Your task to perform on an android device: Search for Mexican restaurants on Maps Image 0: 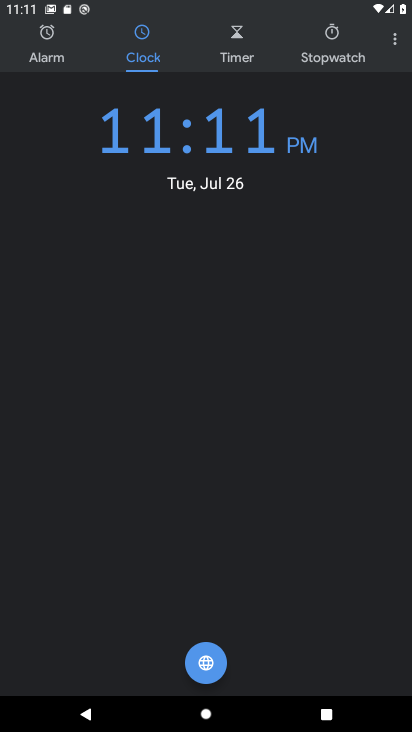
Step 0: press home button
Your task to perform on an android device: Search for Mexican restaurants on Maps Image 1: 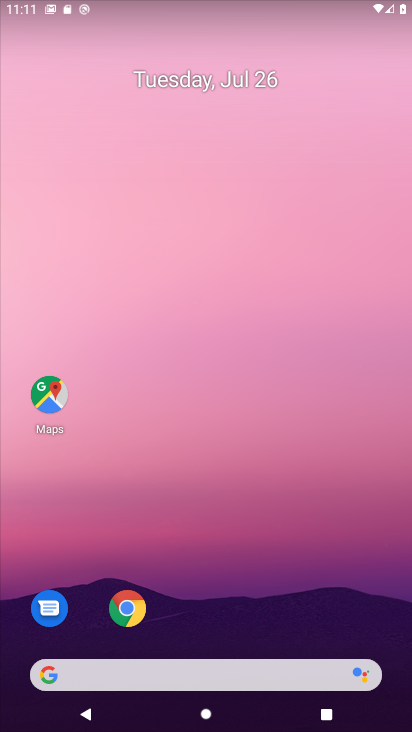
Step 1: click (55, 379)
Your task to perform on an android device: Search for Mexican restaurants on Maps Image 2: 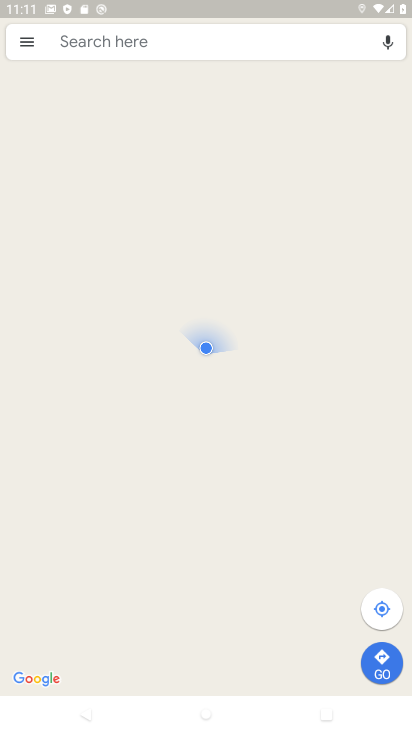
Step 2: click (92, 50)
Your task to perform on an android device: Search for Mexican restaurants on Maps Image 3: 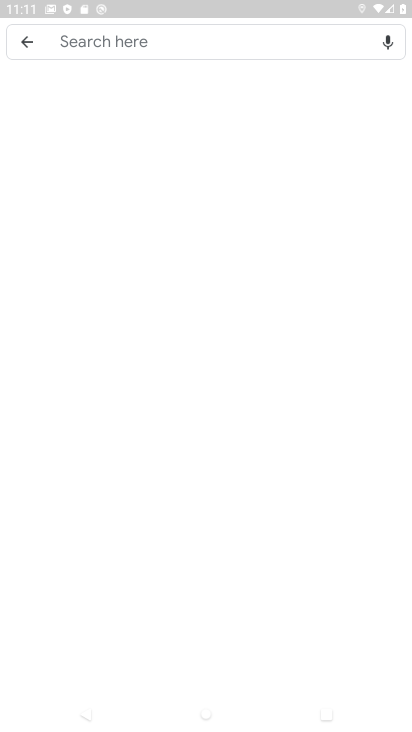
Step 3: click (179, 44)
Your task to perform on an android device: Search for Mexican restaurants on Maps Image 4: 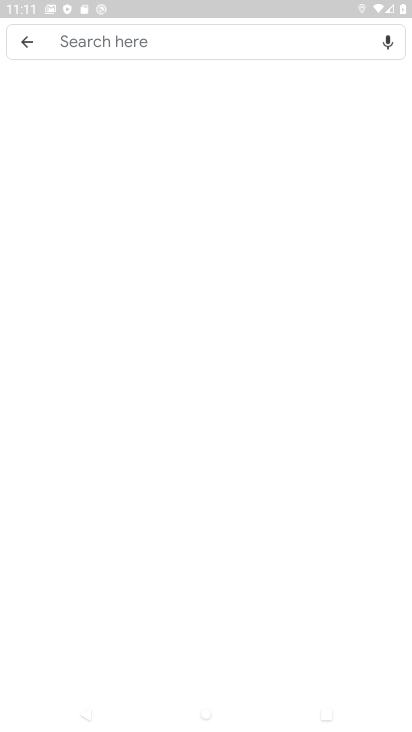
Step 4: click (179, 44)
Your task to perform on an android device: Search for Mexican restaurants on Maps Image 5: 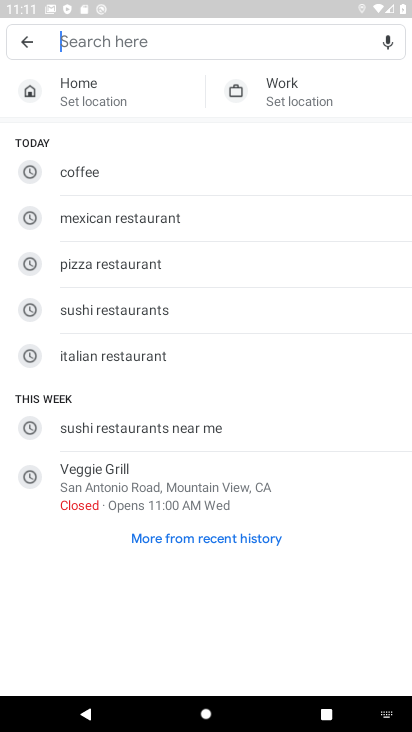
Step 5: click (193, 215)
Your task to perform on an android device: Search for Mexican restaurants on Maps Image 6: 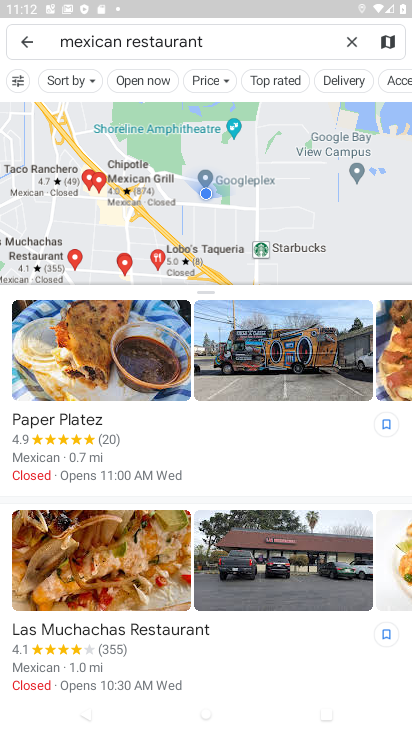
Step 6: task complete